Your task to perform on an android device: Go to display settings Image 0: 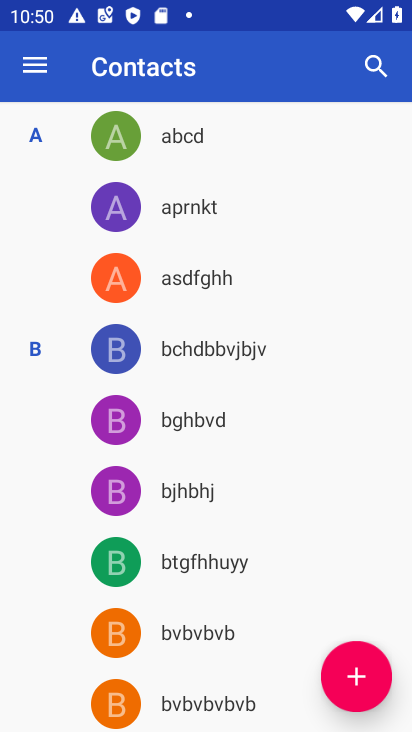
Step 0: press home button
Your task to perform on an android device: Go to display settings Image 1: 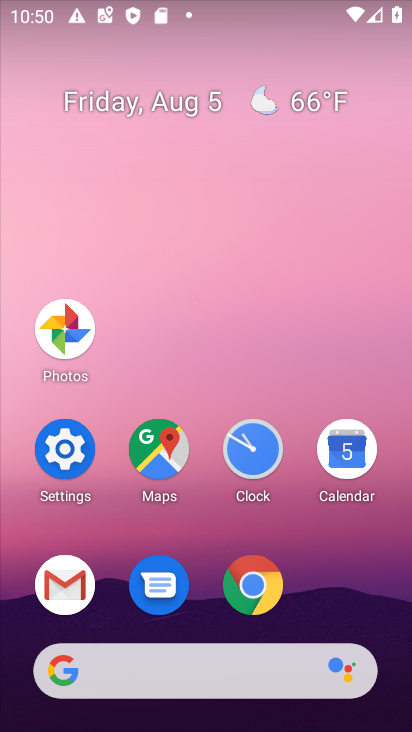
Step 1: click (64, 449)
Your task to perform on an android device: Go to display settings Image 2: 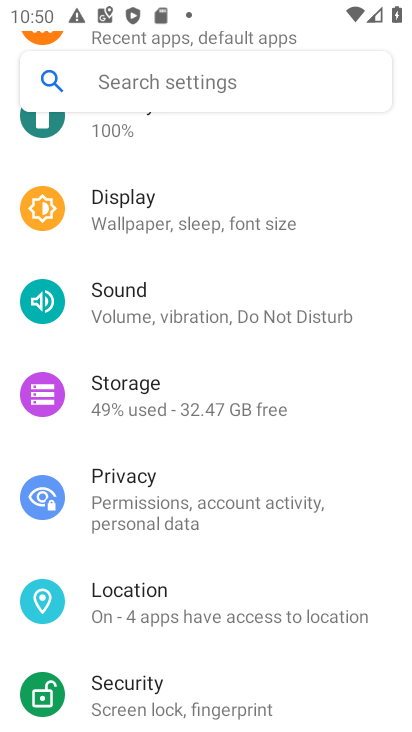
Step 2: click (107, 206)
Your task to perform on an android device: Go to display settings Image 3: 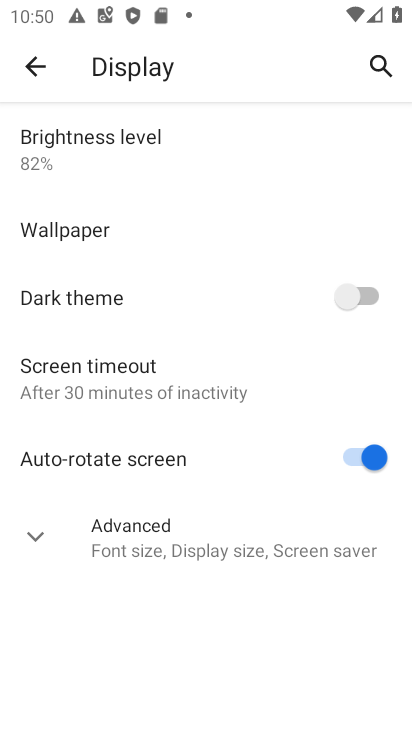
Step 3: task complete